Your task to perform on an android device: Go to Google maps Image 0: 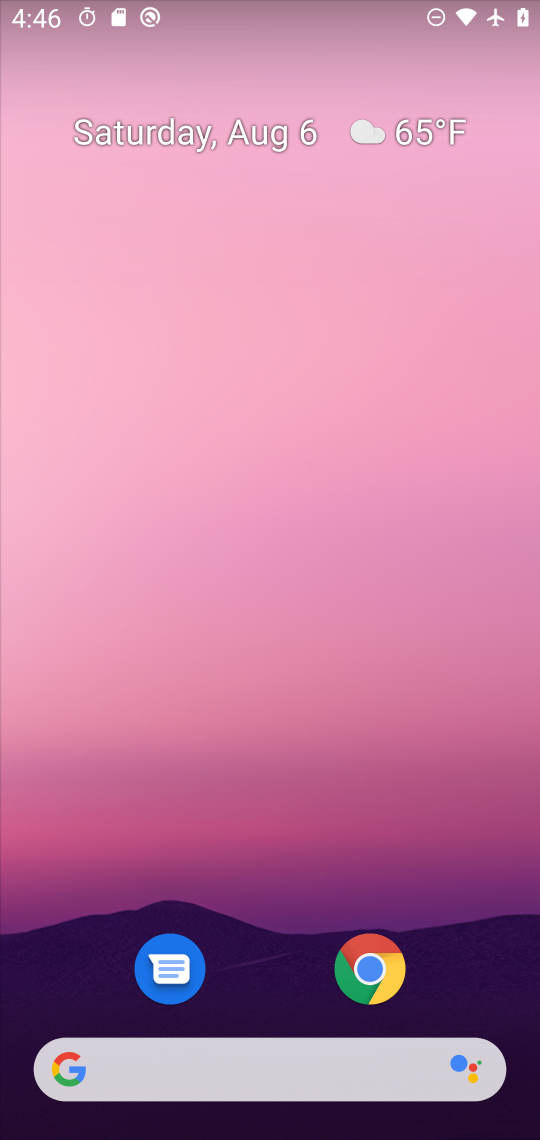
Step 0: press home button
Your task to perform on an android device: Go to Google maps Image 1: 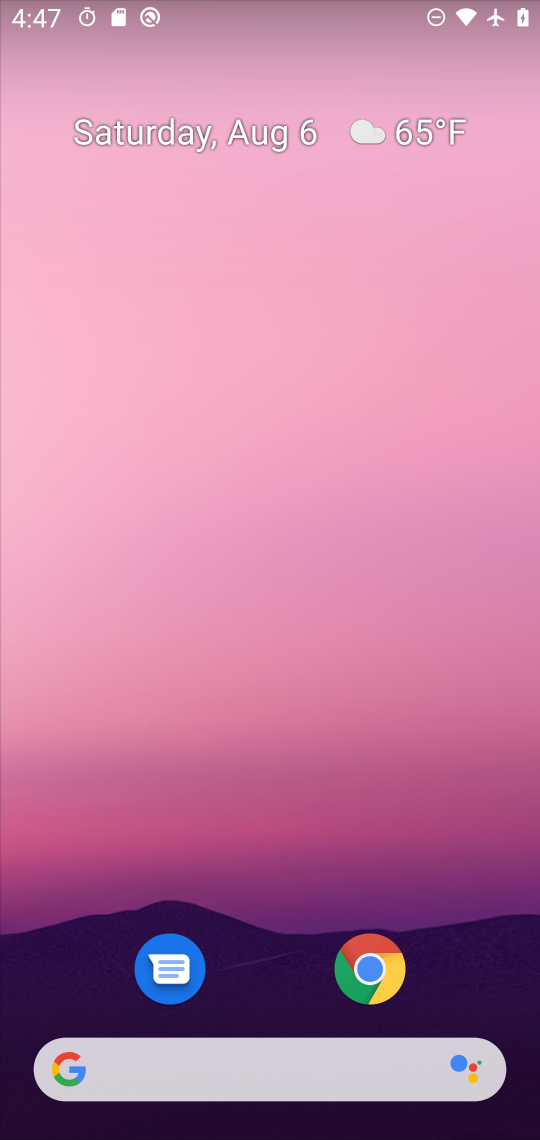
Step 1: drag from (289, 829) to (230, 2)
Your task to perform on an android device: Go to Google maps Image 2: 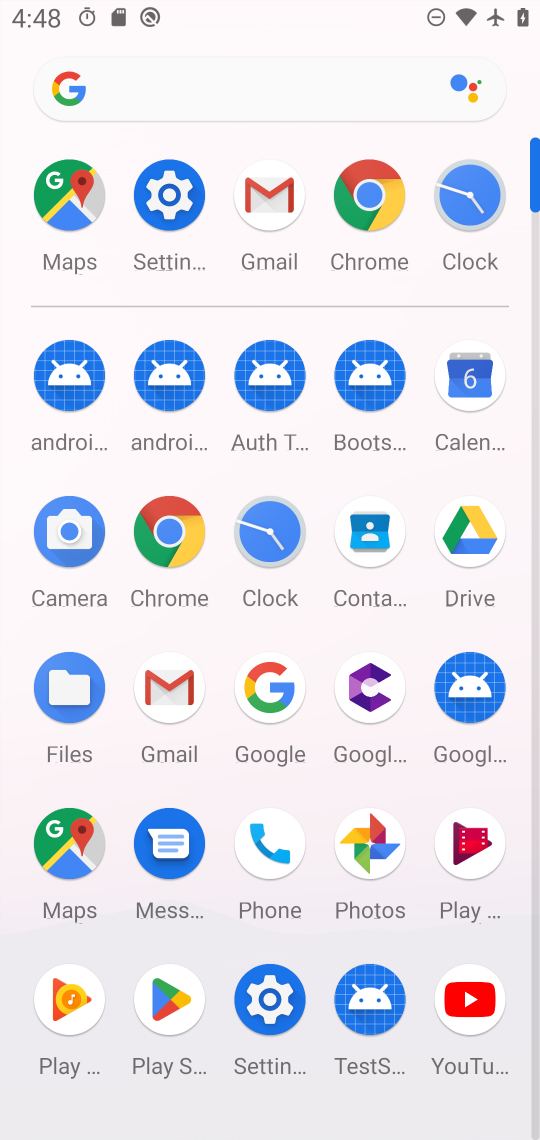
Step 2: click (64, 218)
Your task to perform on an android device: Go to Google maps Image 3: 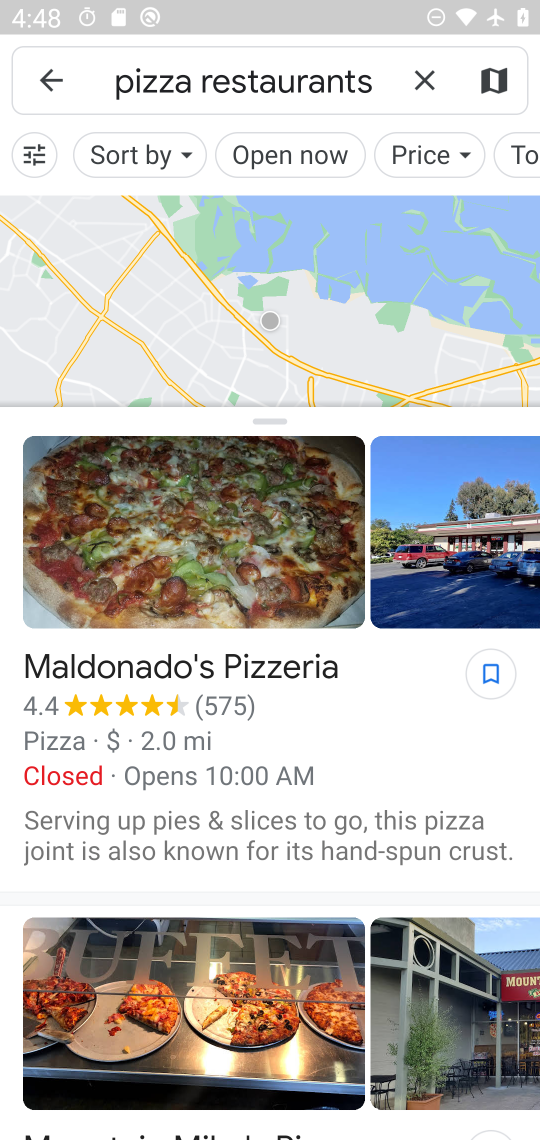
Step 3: click (36, 87)
Your task to perform on an android device: Go to Google maps Image 4: 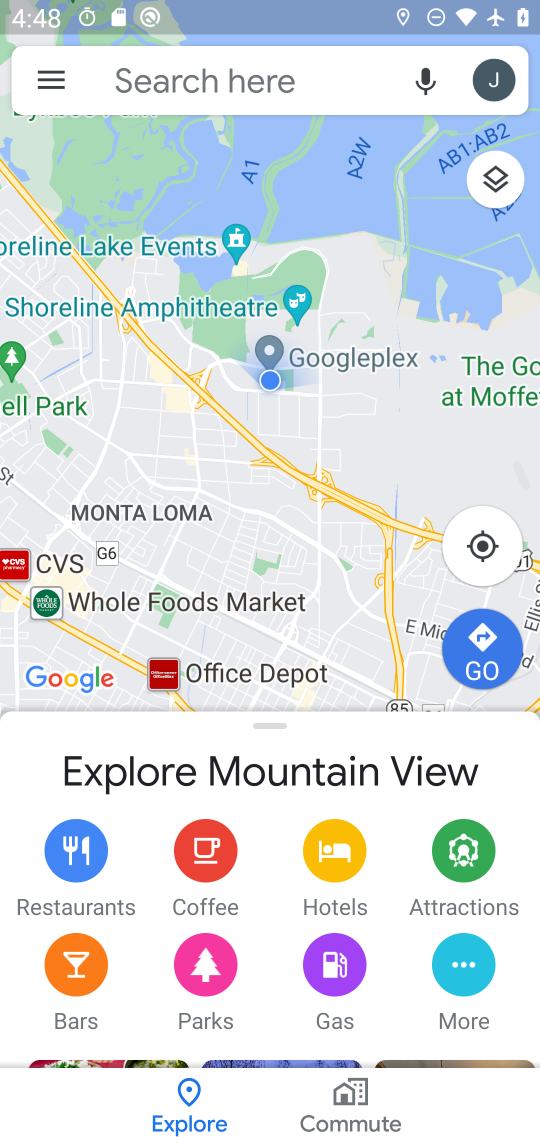
Step 4: task complete